Your task to perform on an android device: Is it going to rain tomorrow? Image 0: 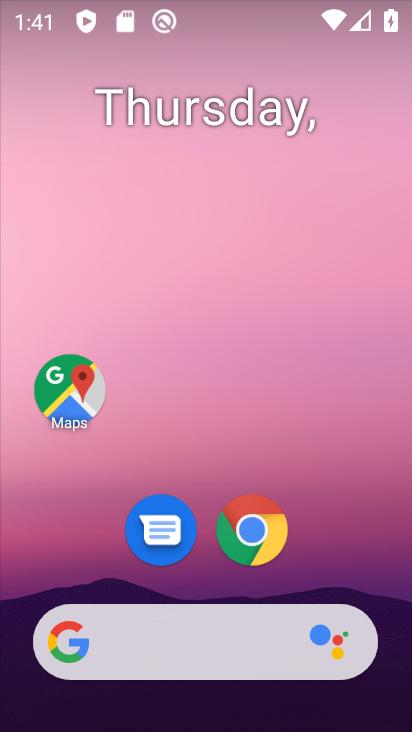
Step 0: click (212, 655)
Your task to perform on an android device: Is it going to rain tomorrow? Image 1: 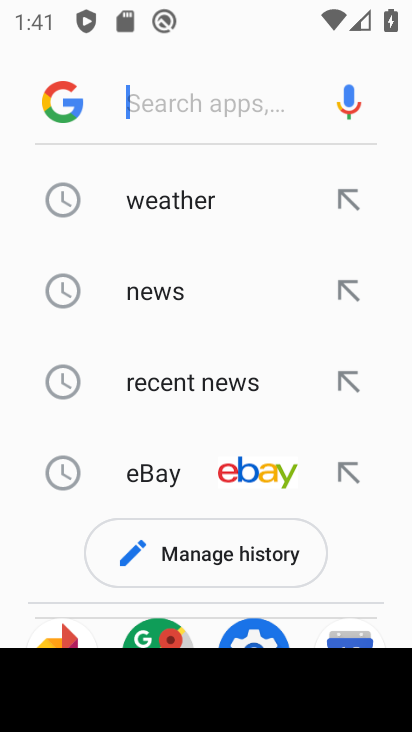
Step 1: type "Is it going to rain tomorrow?"
Your task to perform on an android device: Is it going to rain tomorrow? Image 2: 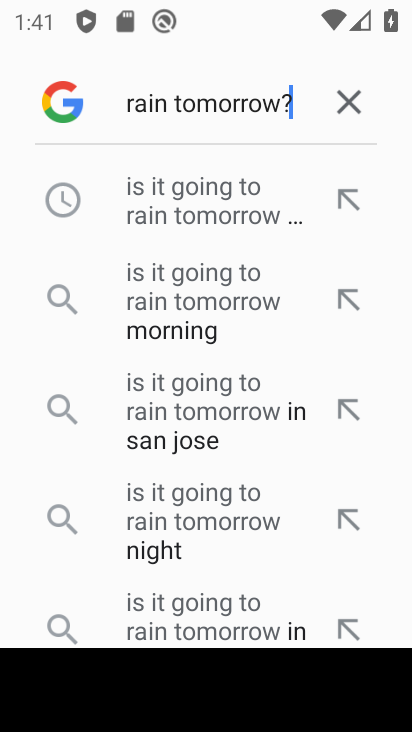
Step 2: click (224, 198)
Your task to perform on an android device: Is it going to rain tomorrow? Image 3: 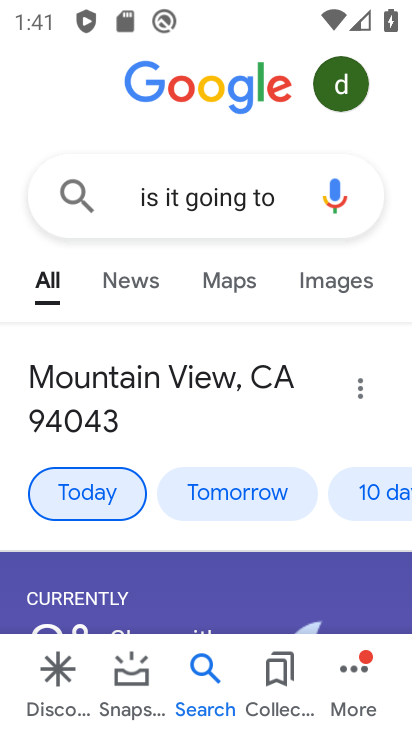
Step 3: task complete